Your task to perform on an android device: toggle location history Image 0: 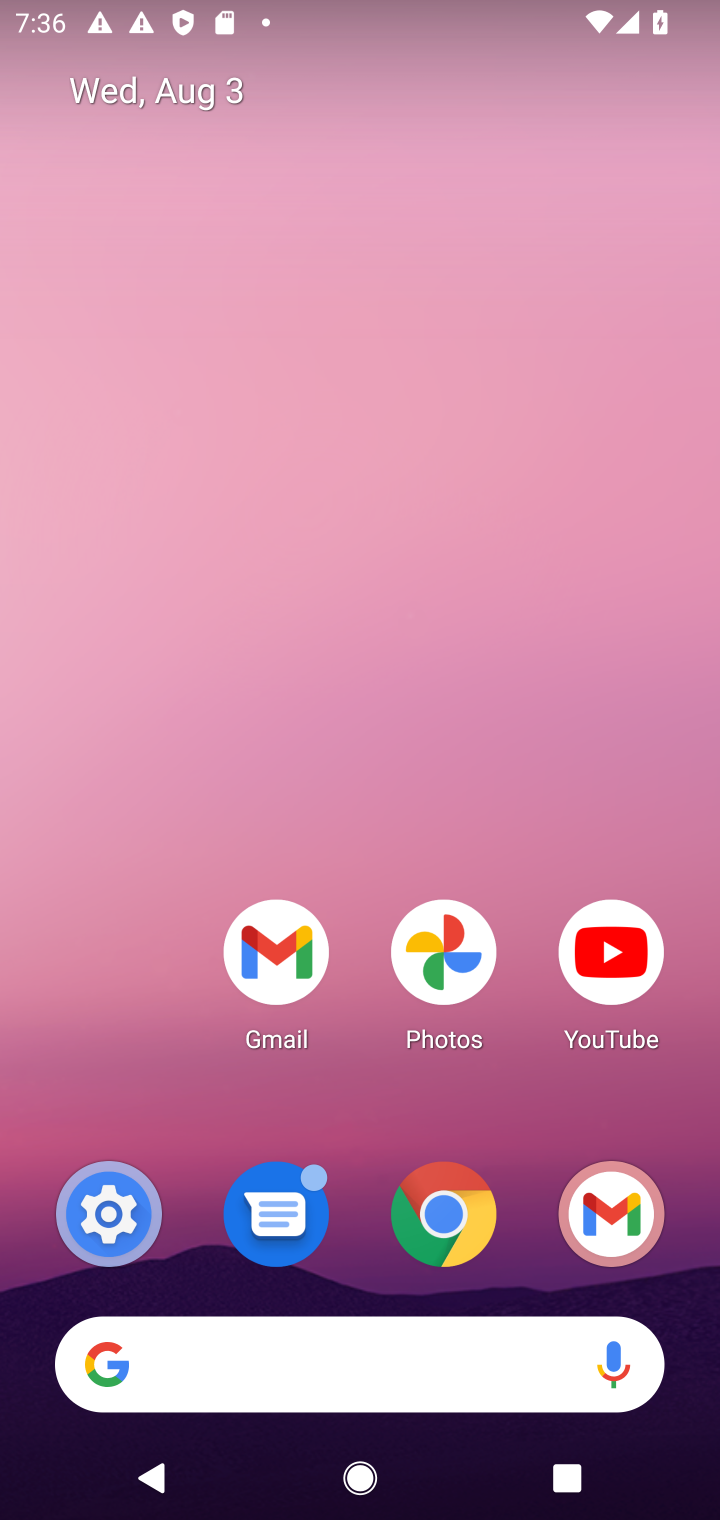
Step 0: drag from (309, 1215) to (309, 180)
Your task to perform on an android device: toggle location history Image 1: 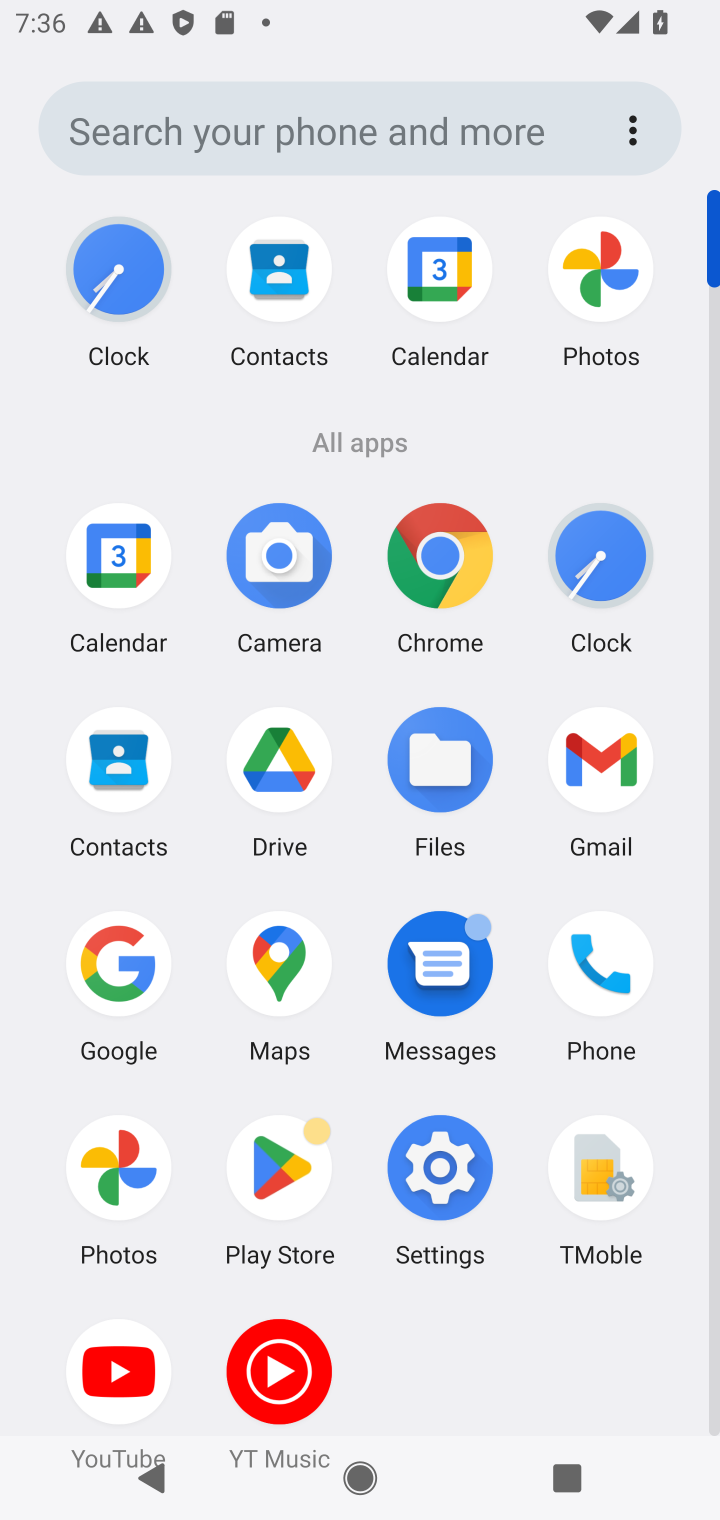
Step 1: click (442, 1177)
Your task to perform on an android device: toggle location history Image 2: 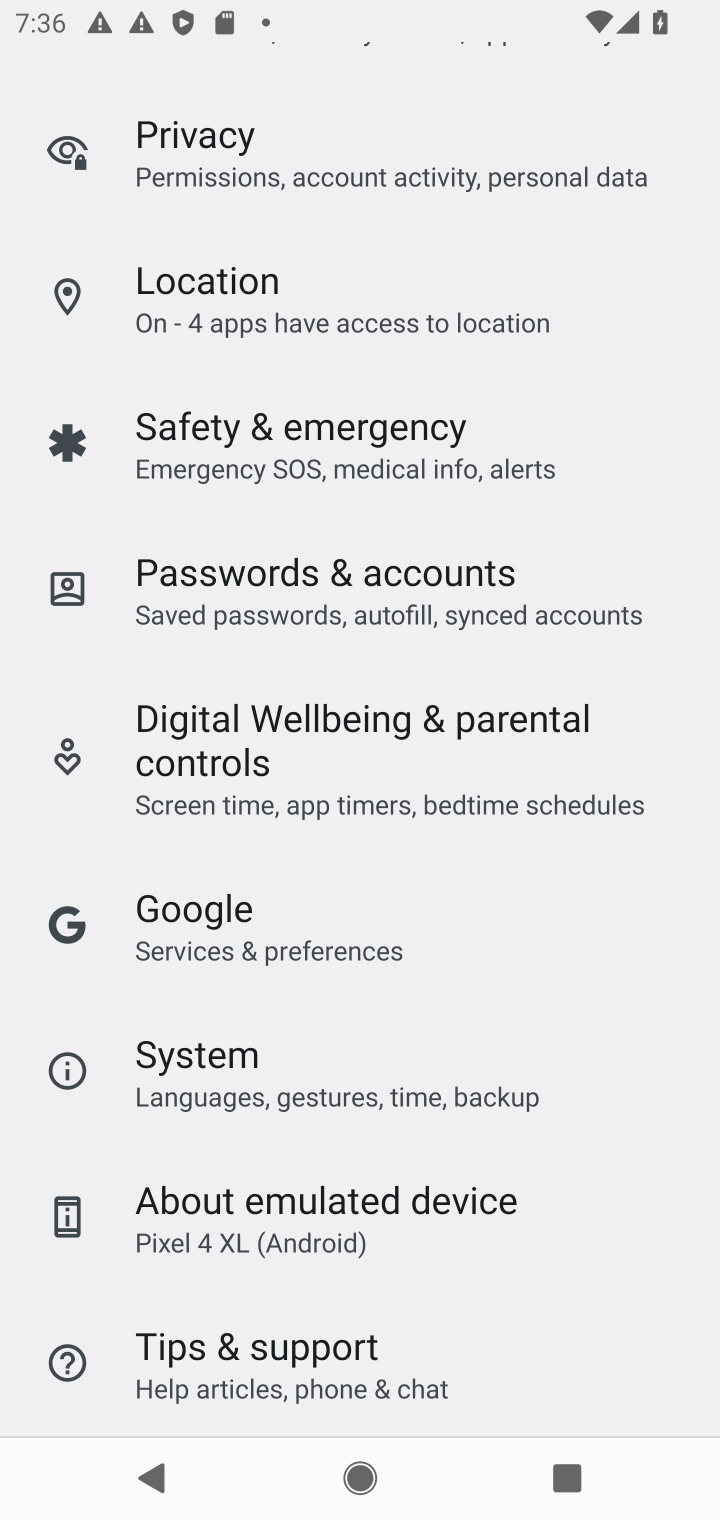
Step 2: click (208, 304)
Your task to perform on an android device: toggle location history Image 3: 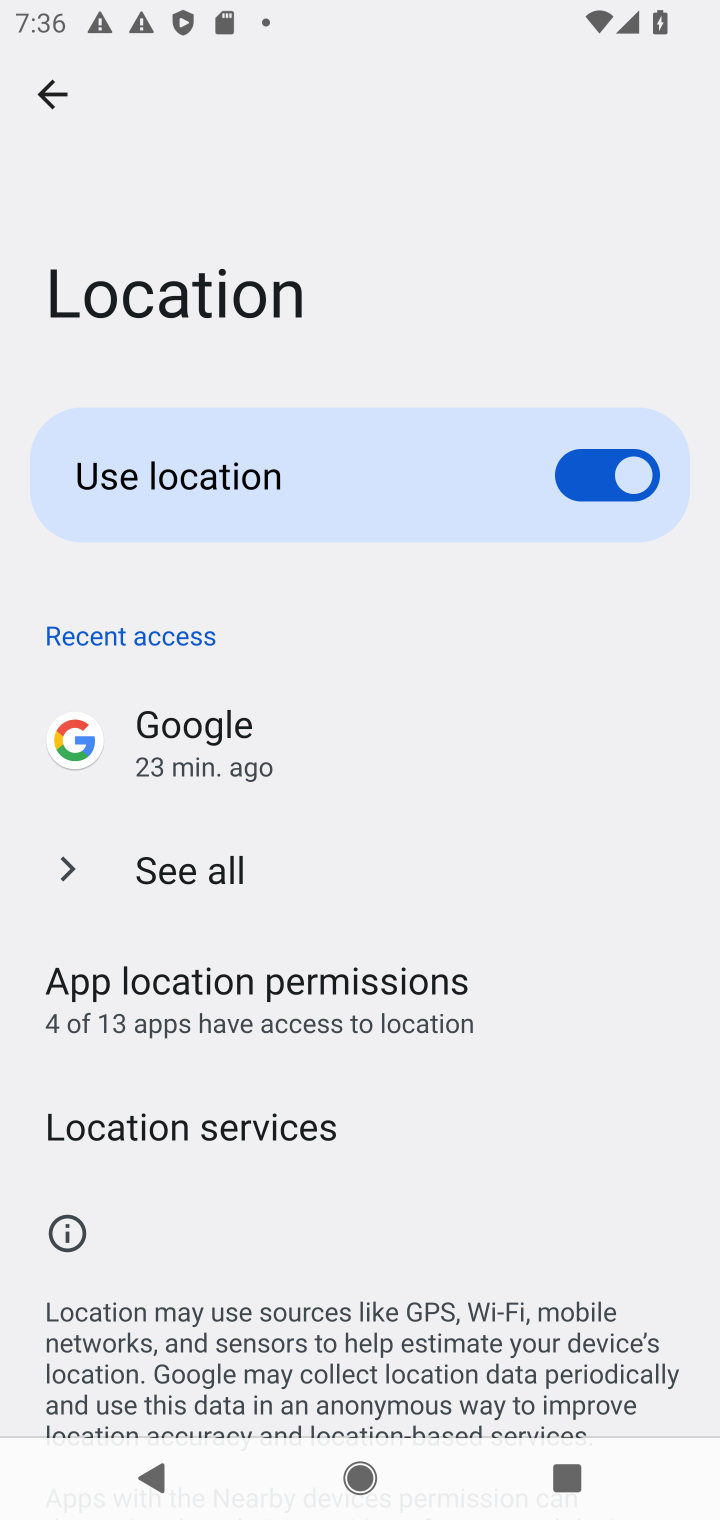
Step 3: drag from (164, 1116) to (154, 401)
Your task to perform on an android device: toggle location history Image 4: 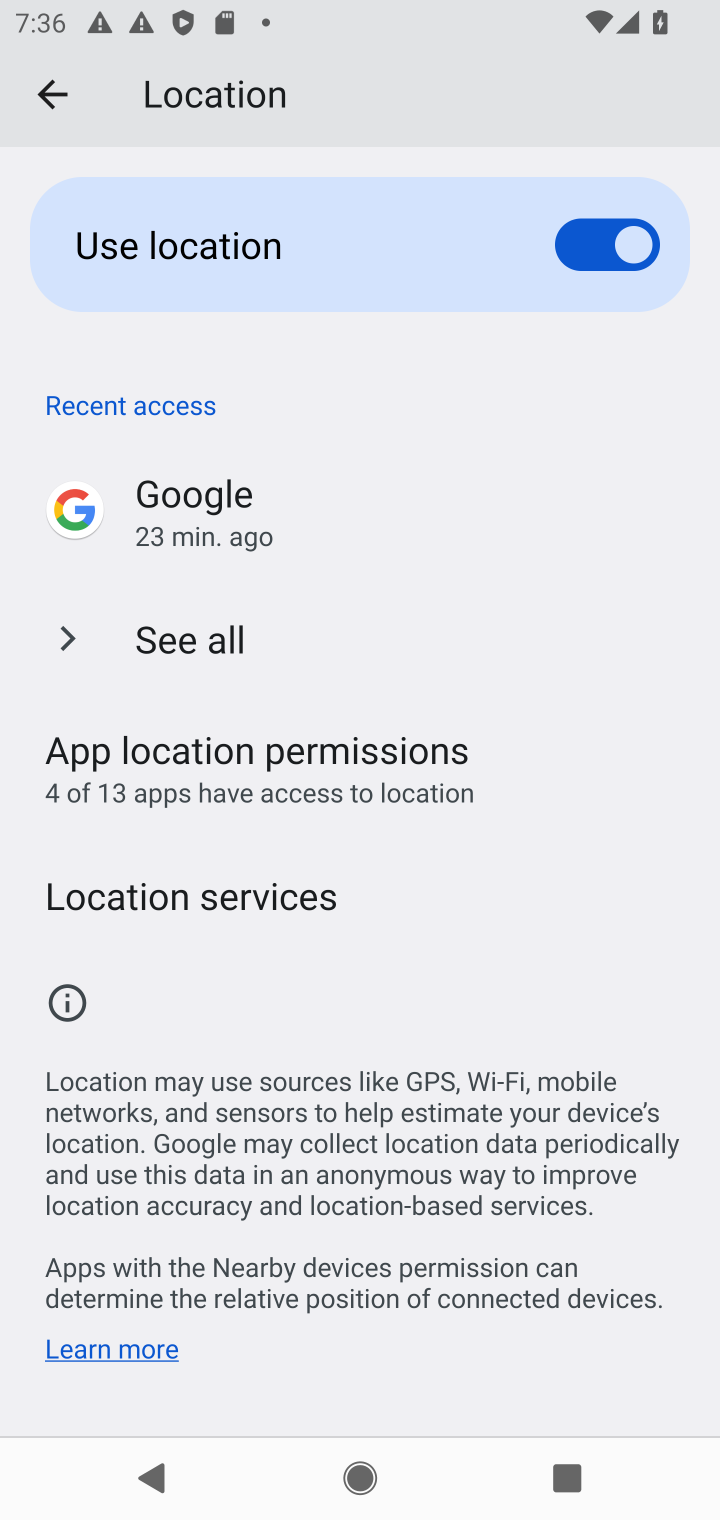
Step 4: click (83, 901)
Your task to perform on an android device: toggle location history Image 5: 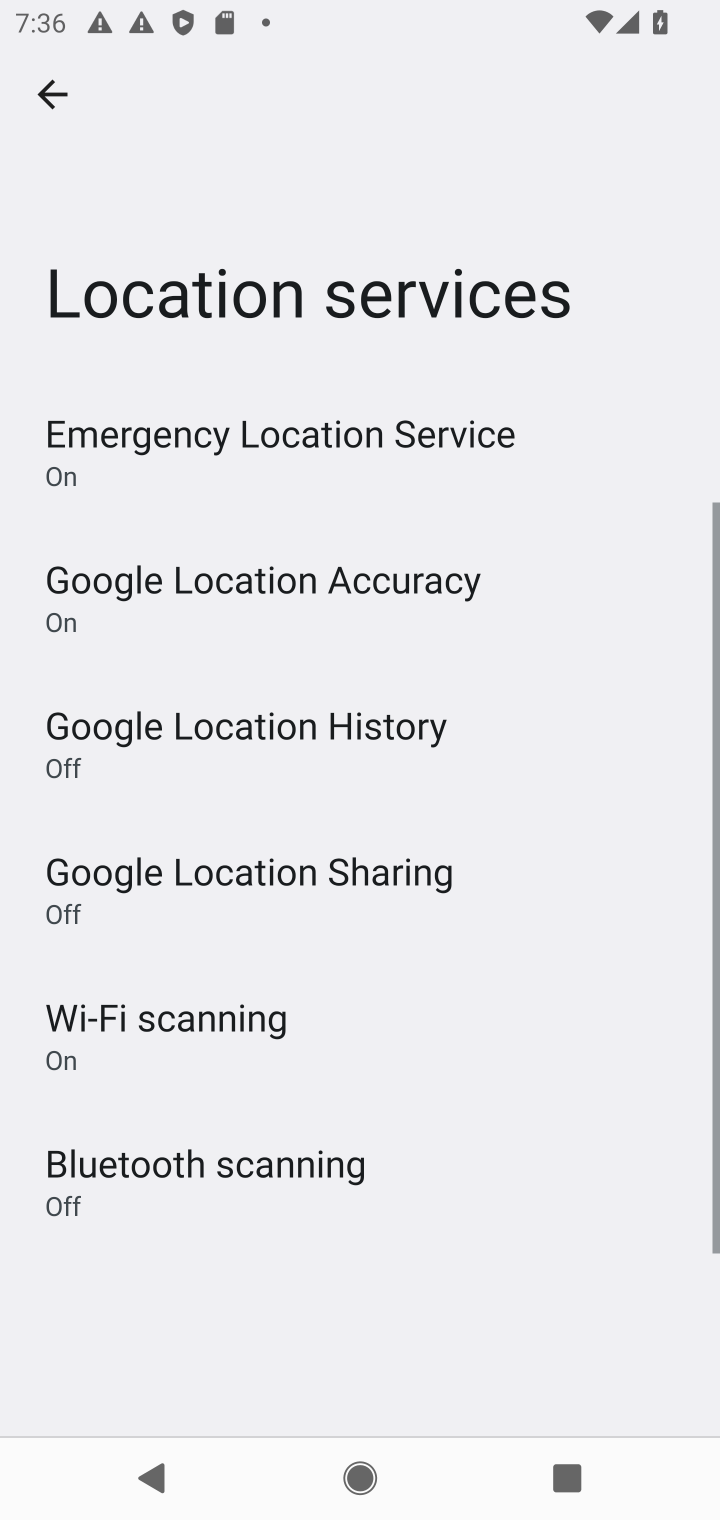
Step 5: click (427, 721)
Your task to perform on an android device: toggle location history Image 6: 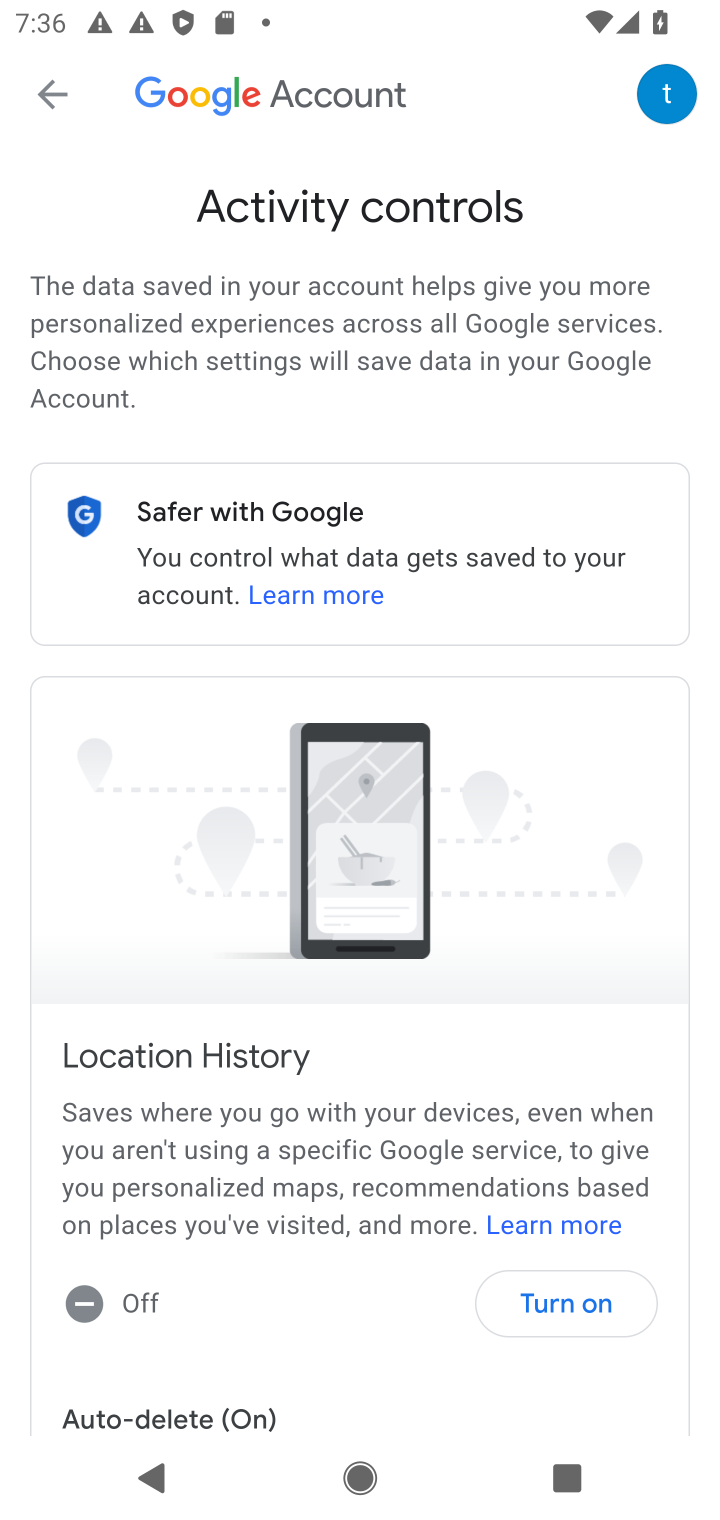
Step 6: click (560, 1306)
Your task to perform on an android device: toggle location history Image 7: 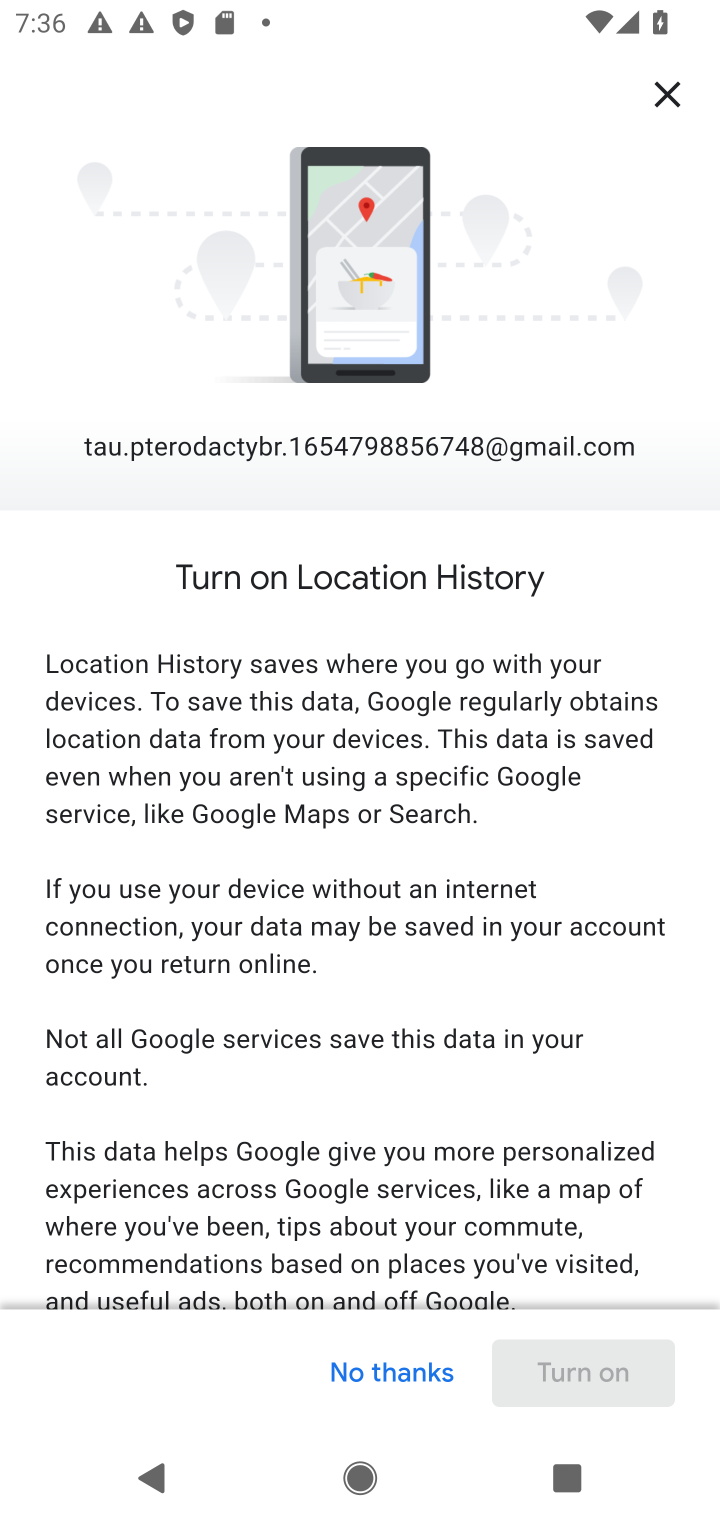
Step 7: drag from (358, 1252) to (358, 316)
Your task to perform on an android device: toggle location history Image 8: 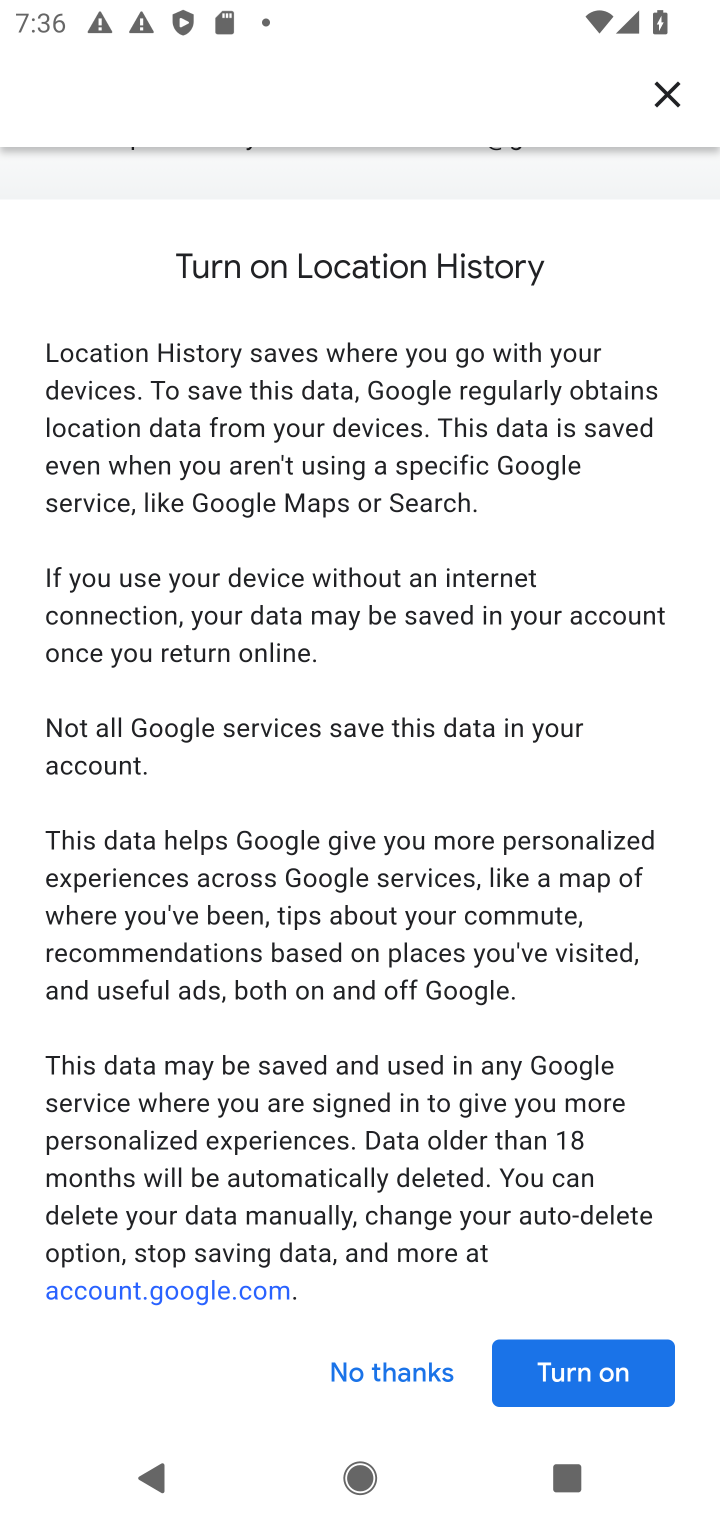
Step 8: click (573, 1396)
Your task to perform on an android device: toggle location history Image 9: 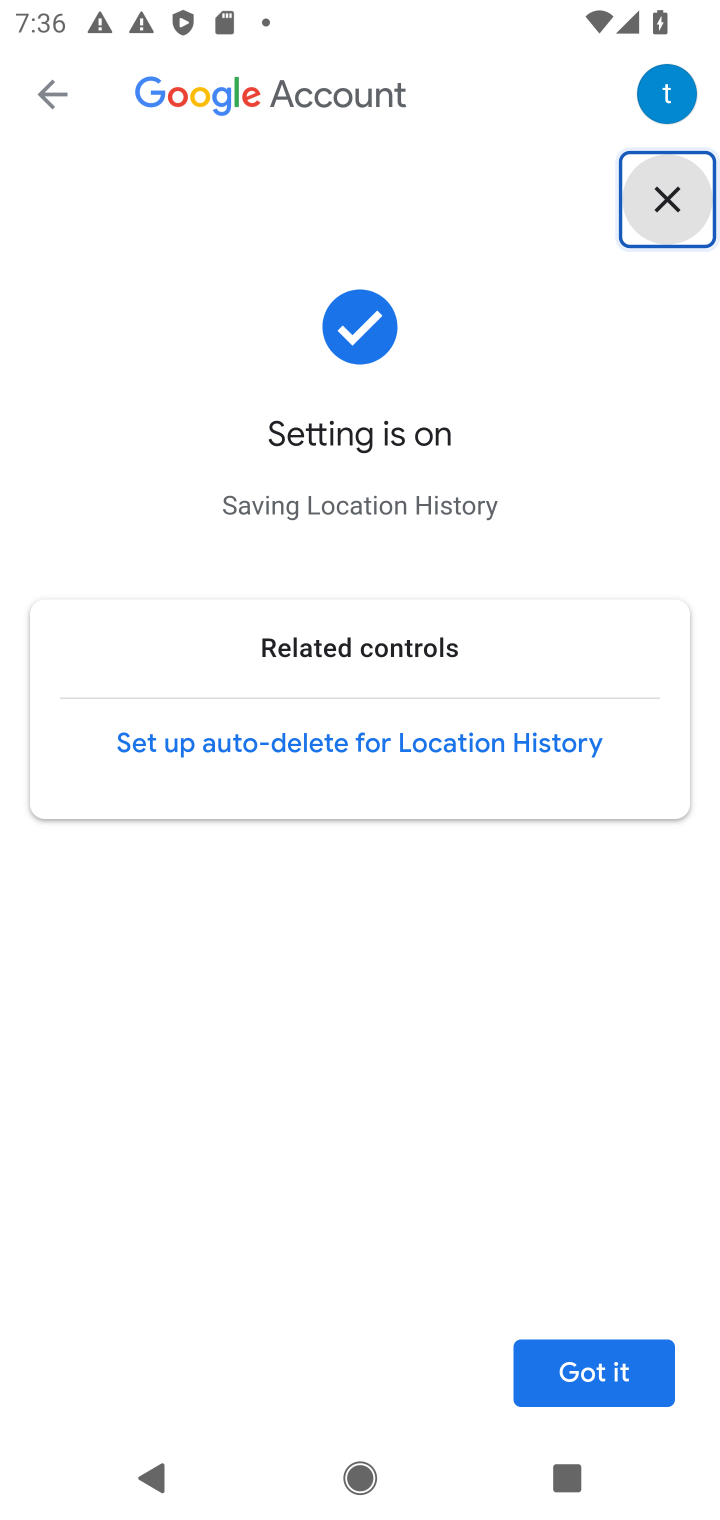
Step 9: click (583, 1369)
Your task to perform on an android device: toggle location history Image 10: 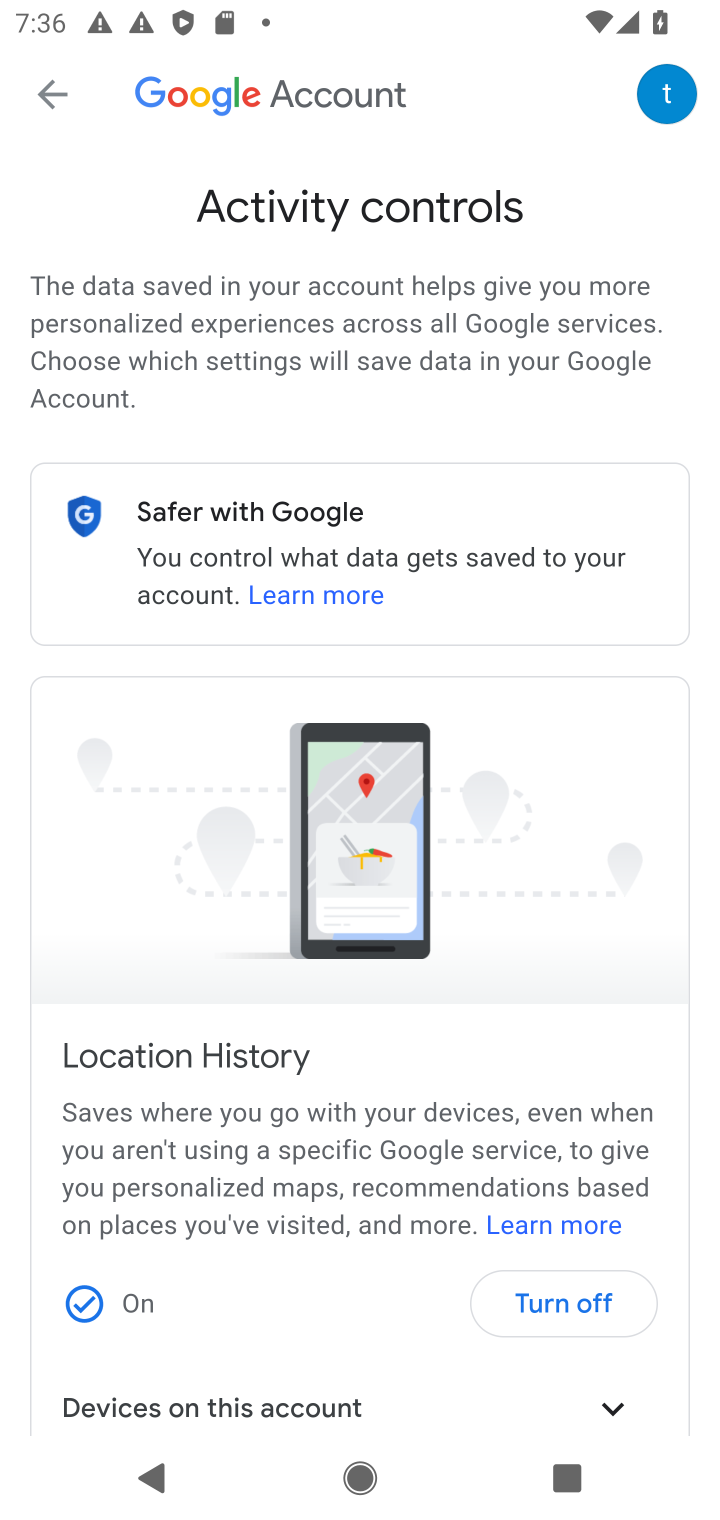
Step 10: task complete